Your task to perform on an android device: What's on my calendar today? Image 0: 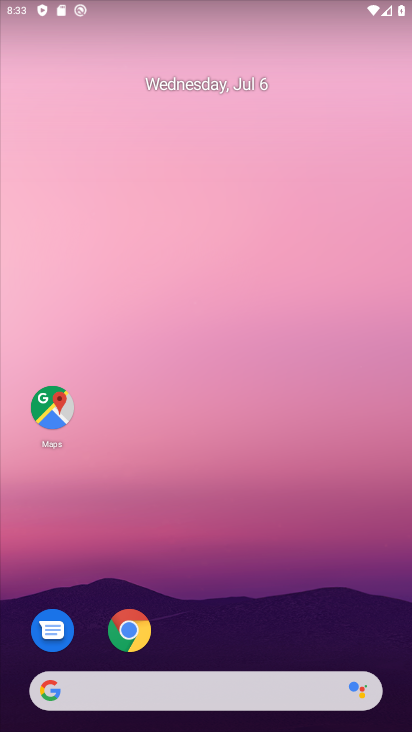
Step 0: drag from (382, 661) to (317, 177)
Your task to perform on an android device: What's on my calendar today? Image 1: 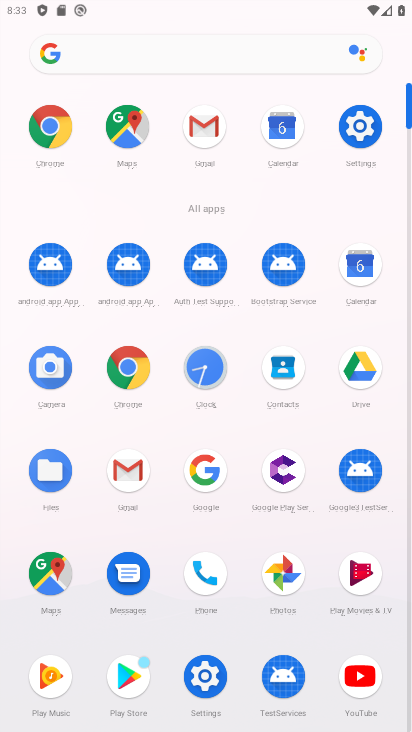
Step 1: click (347, 266)
Your task to perform on an android device: What's on my calendar today? Image 2: 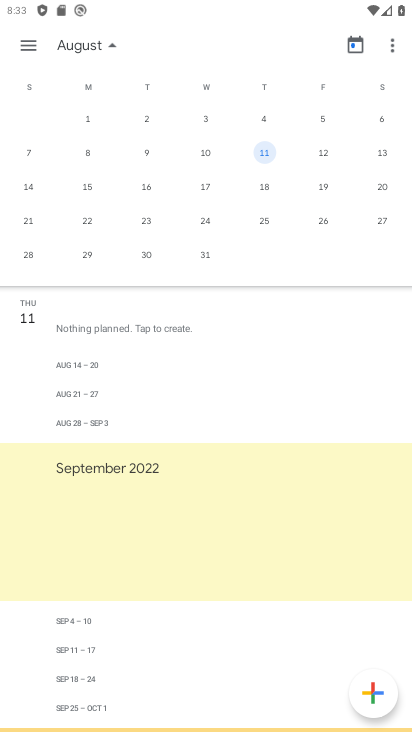
Step 2: drag from (46, 137) to (354, 143)
Your task to perform on an android device: What's on my calendar today? Image 3: 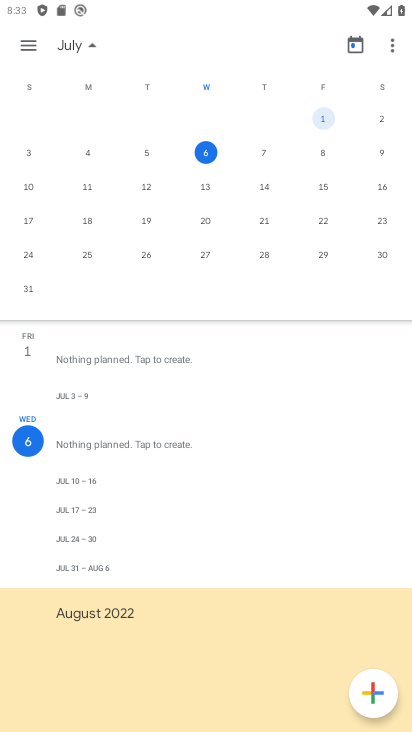
Step 3: click (202, 146)
Your task to perform on an android device: What's on my calendar today? Image 4: 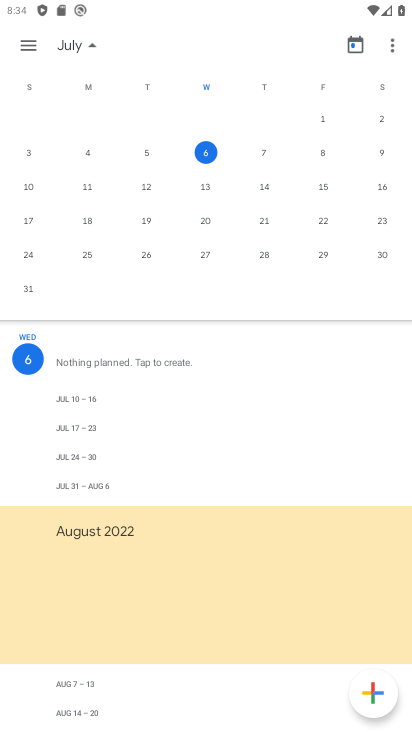
Step 4: task complete